Your task to perform on an android device: turn notification dots off Image 0: 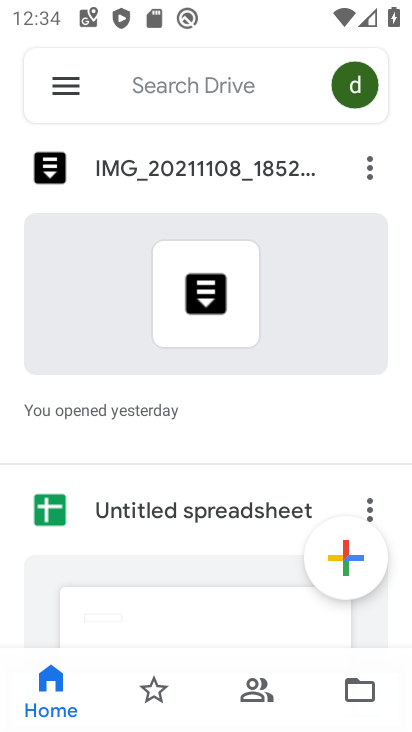
Step 0: press home button
Your task to perform on an android device: turn notification dots off Image 1: 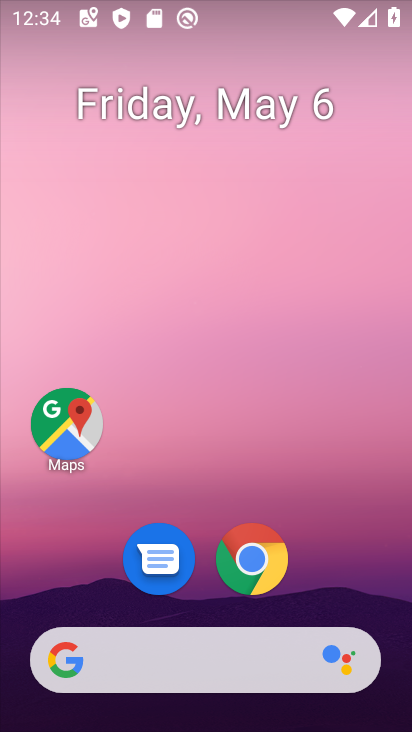
Step 1: drag from (308, 600) to (268, 140)
Your task to perform on an android device: turn notification dots off Image 2: 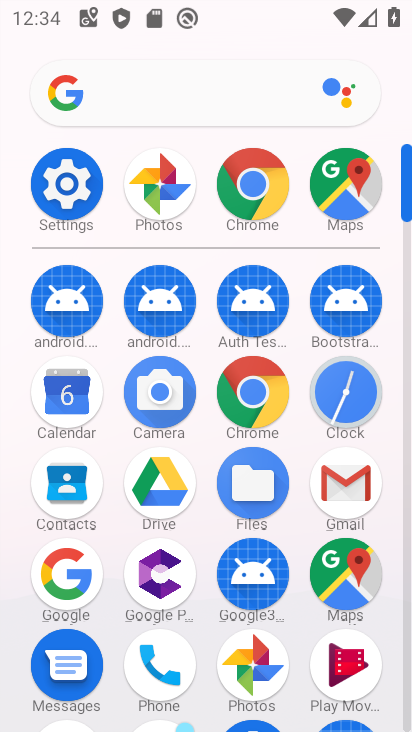
Step 2: click (70, 196)
Your task to perform on an android device: turn notification dots off Image 3: 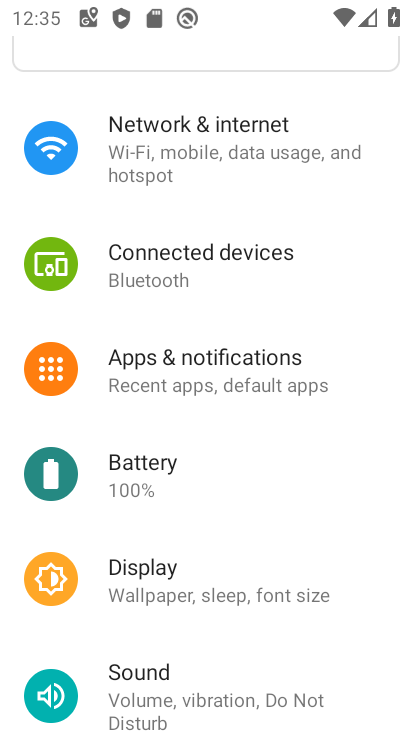
Step 3: click (194, 392)
Your task to perform on an android device: turn notification dots off Image 4: 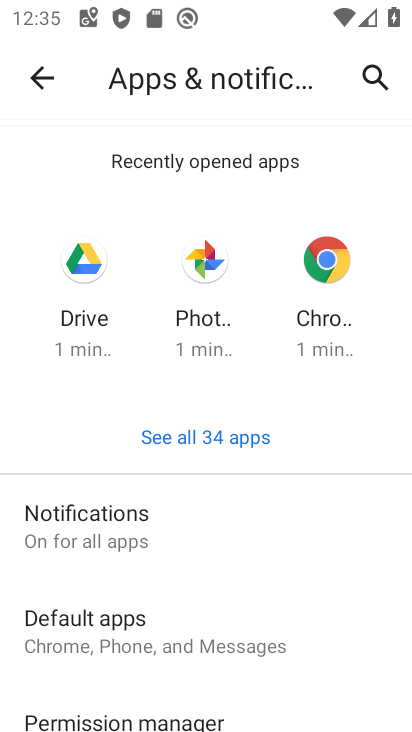
Step 4: click (111, 546)
Your task to perform on an android device: turn notification dots off Image 5: 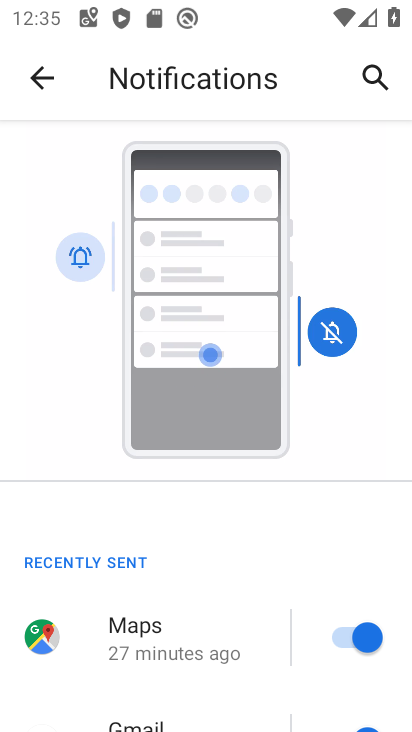
Step 5: drag from (102, 681) to (129, 286)
Your task to perform on an android device: turn notification dots off Image 6: 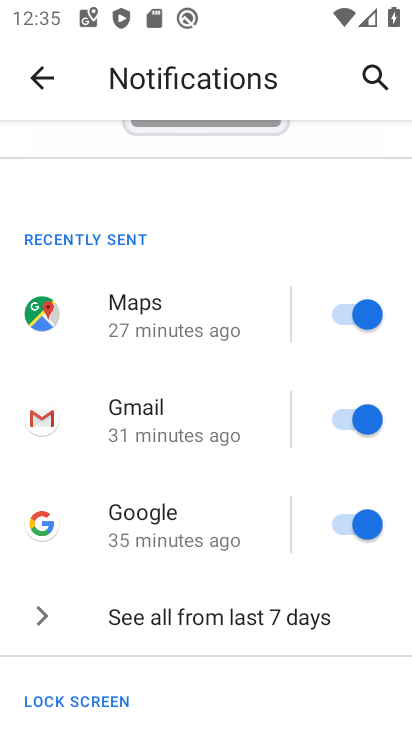
Step 6: drag from (191, 671) to (149, 419)
Your task to perform on an android device: turn notification dots off Image 7: 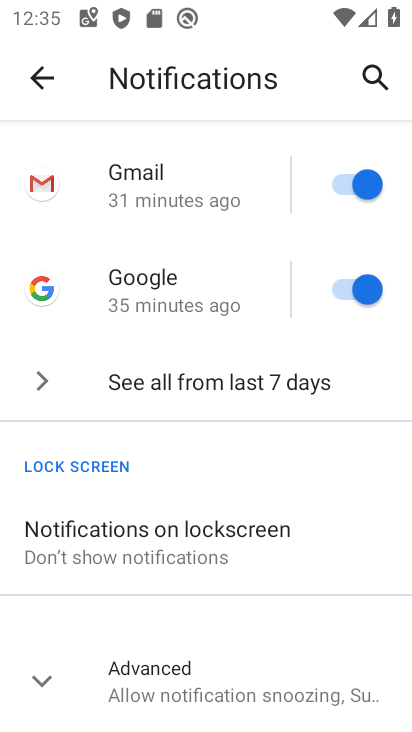
Step 7: click (209, 666)
Your task to perform on an android device: turn notification dots off Image 8: 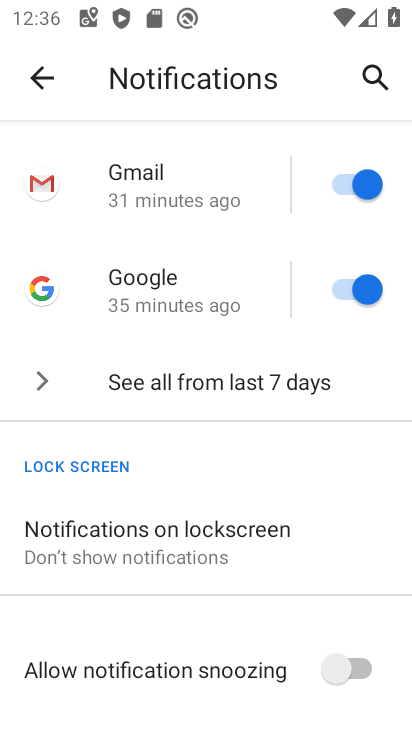
Step 8: drag from (274, 533) to (287, 345)
Your task to perform on an android device: turn notification dots off Image 9: 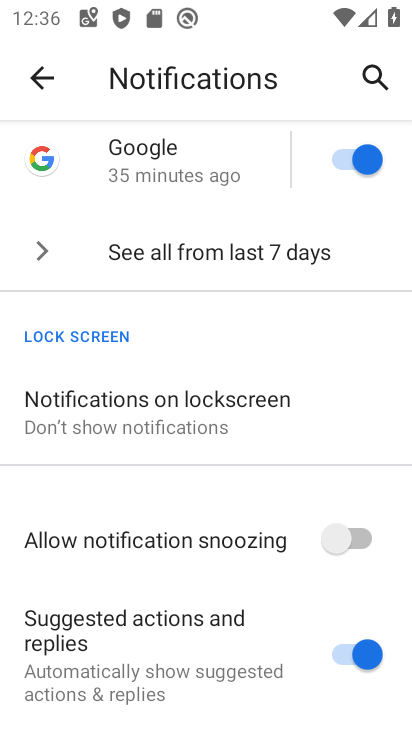
Step 9: drag from (230, 628) to (242, 361)
Your task to perform on an android device: turn notification dots off Image 10: 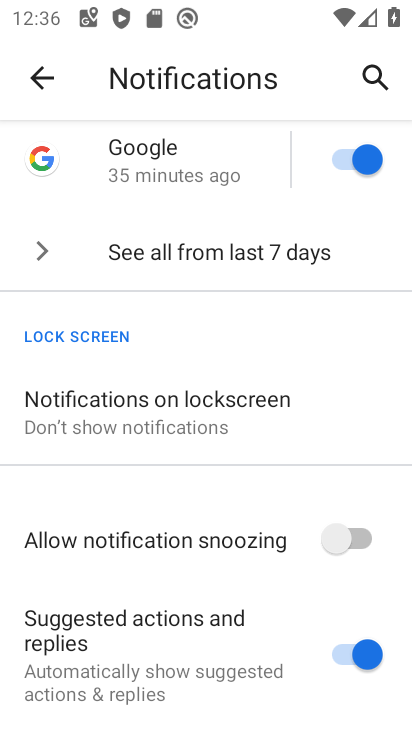
Step 10: drag from (165, 661) to (159, 461)
Your task to perform on an android device: turn notification dots off Image 11: 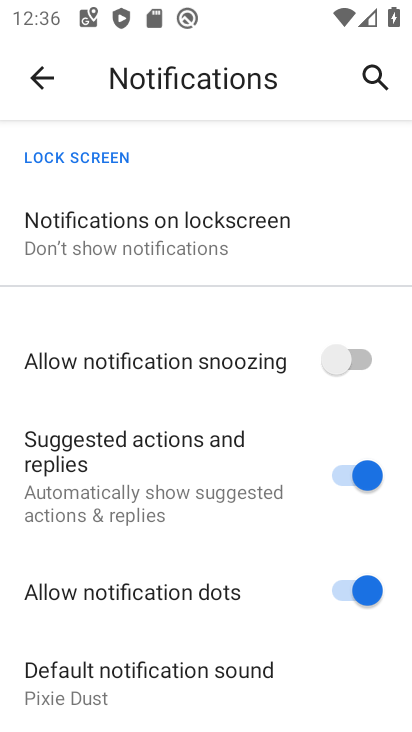
Step 11: click (348, 608)
Your task to perform on an android device: turn notification dots off Image 12: 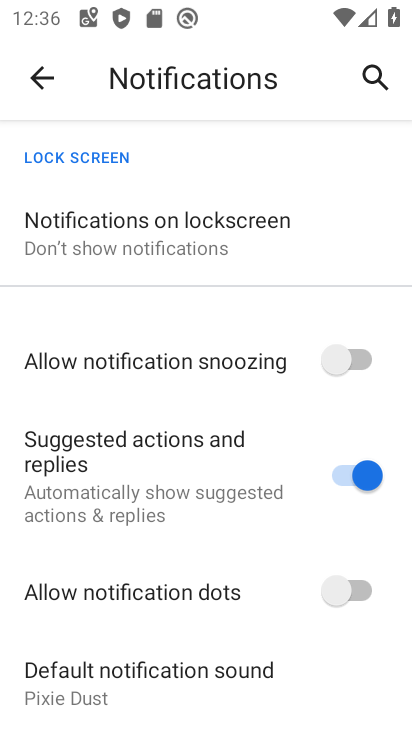
Step 12: task complete